Your task to perform on an android device: Open settings on Google Maps Image 0: 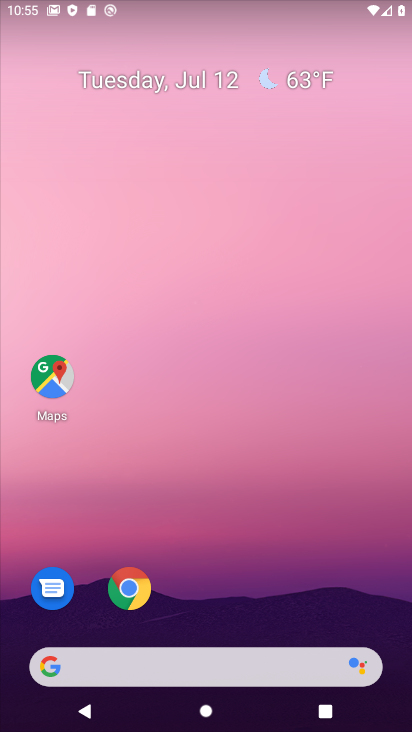
Step 0: click (65, 380)
Your task to perform on an android device: Open settings on Google Maps Image 1: 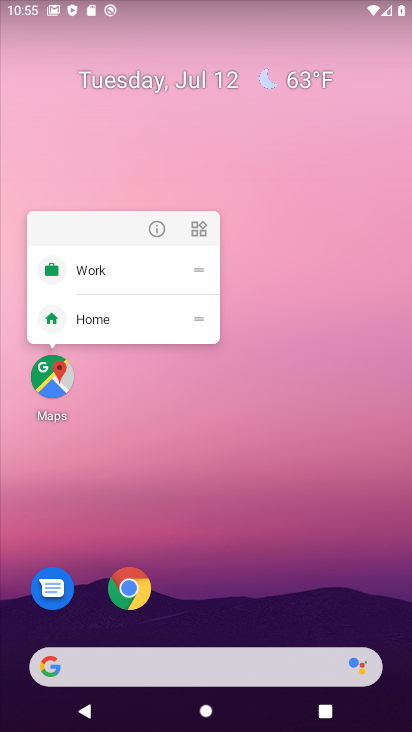
Step 1: click (56, 384)
Your task to perform on an android device: Open settings on Google Maps Image 2: 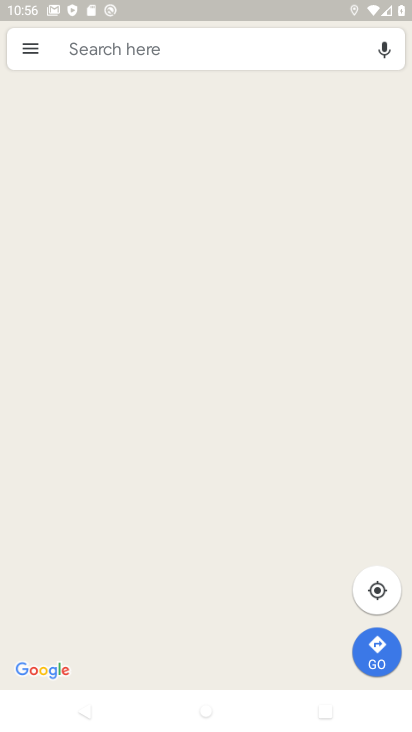
Step 2: click (30, 45)
Your task to perform on an android device: Open settings on Google Maps Image 3: 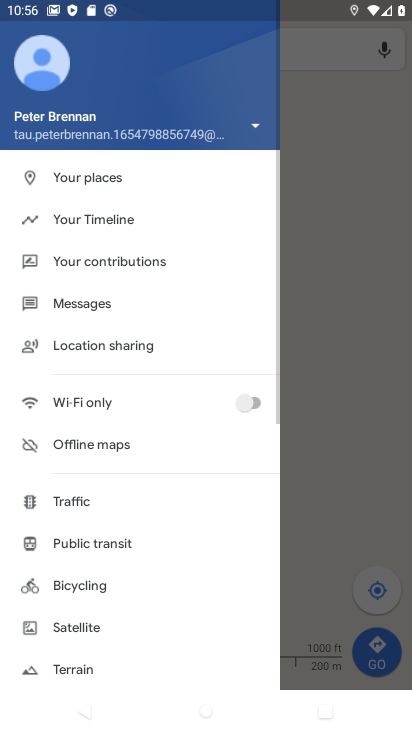
Step 3: drag from (82, 643) to (233, 142)
Your task to perform on an android device: Open settings on Google Maps Image 4: 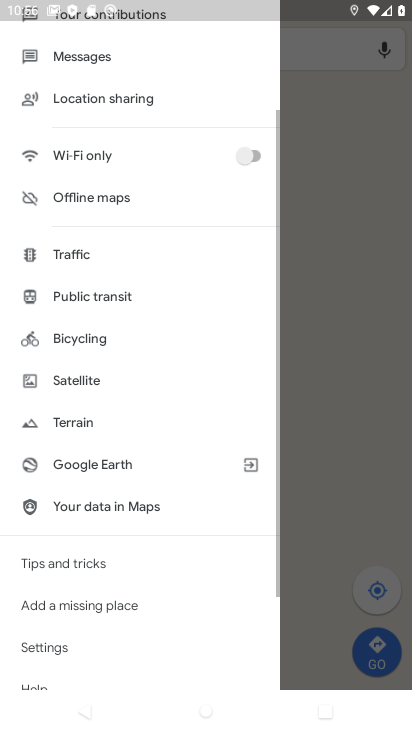
Step 4: drag from (115, 667) to (219, 178)
Your task to perform on an android device: Open settings on Google Maps Image 5: 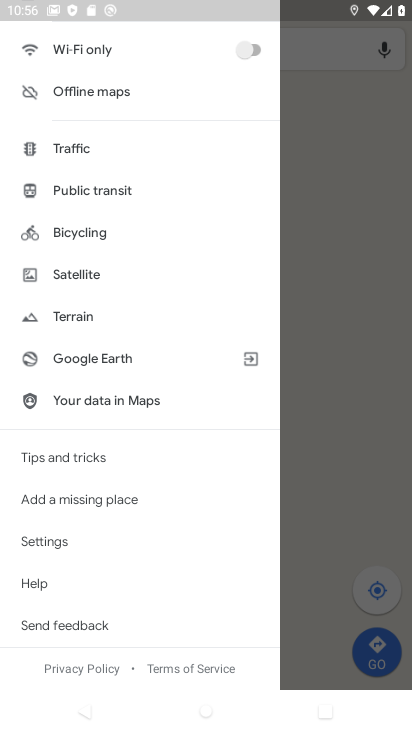
Step 5: click (102, 553)
Your task to perform on an android device: Open settings on Google Maps Image 6: 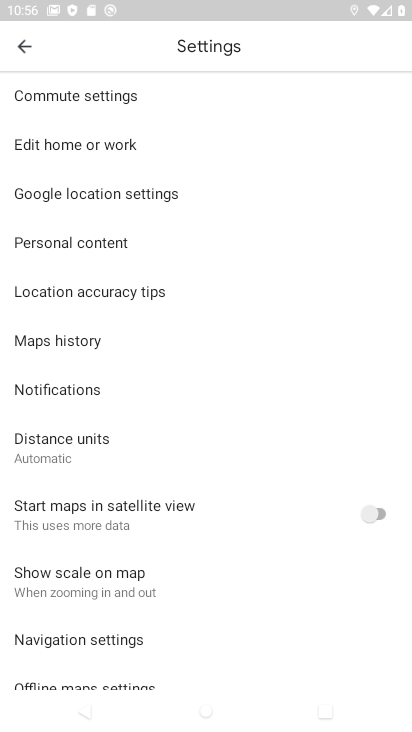
Step 6: task complete